Your task to perform on an android device: add a contact Image 0: 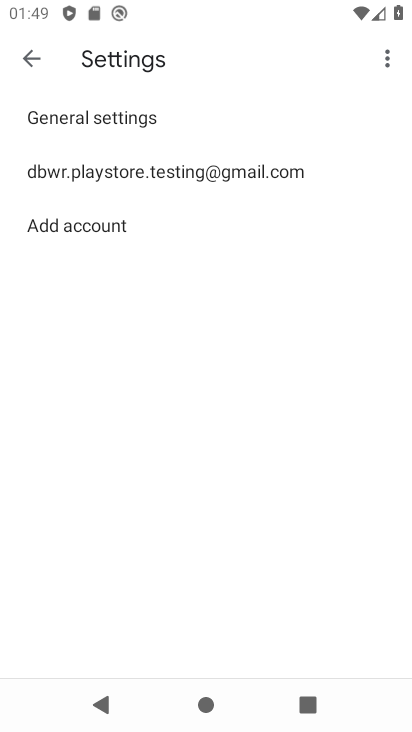
Step 0: press back button
Your task to perform on an android device: add a contact Image 1: 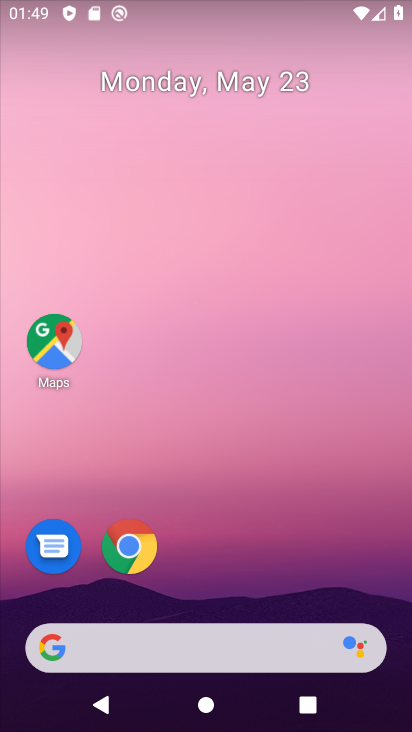
Step 1: drag from (229, 582) to (228, 37)
Your task to perform on an android device: add a contact Image 2: 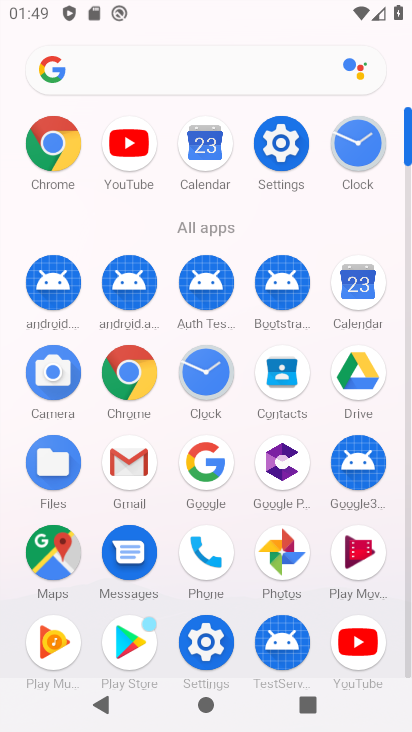
Step 2: click (290, 391)
Your task to perform on an android device: add a contact Image 3: 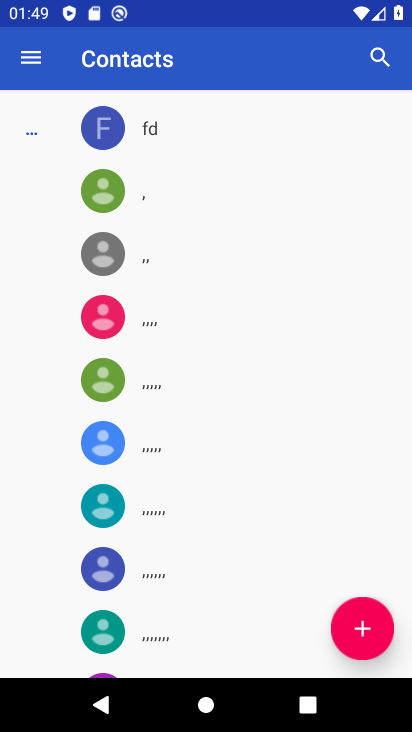
Step 3: click (374, 634)
Your task to perform on an android device: add a contact Image 4: 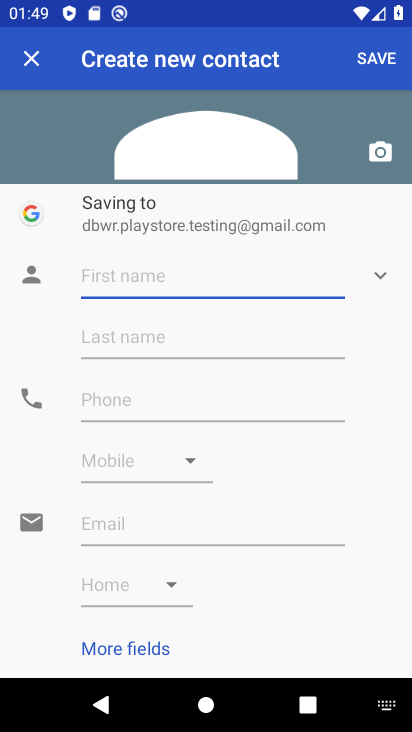
Step 4: click (157, 283)
Your task to perform on an android device: add a contact Image 5: 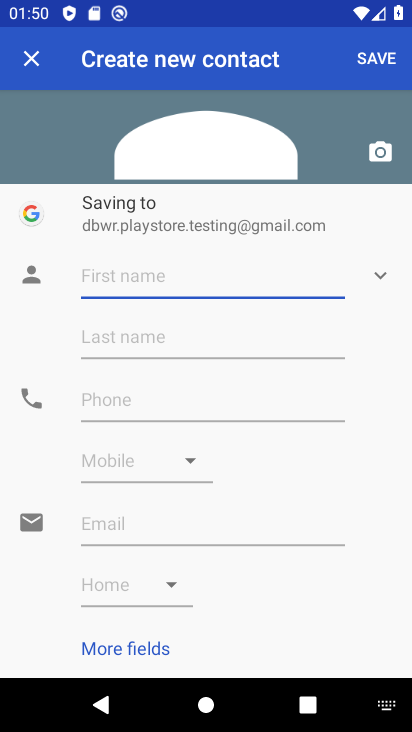
Step 5: type "gvgv"
Your task to perform on an android device: add a contact Image 6: 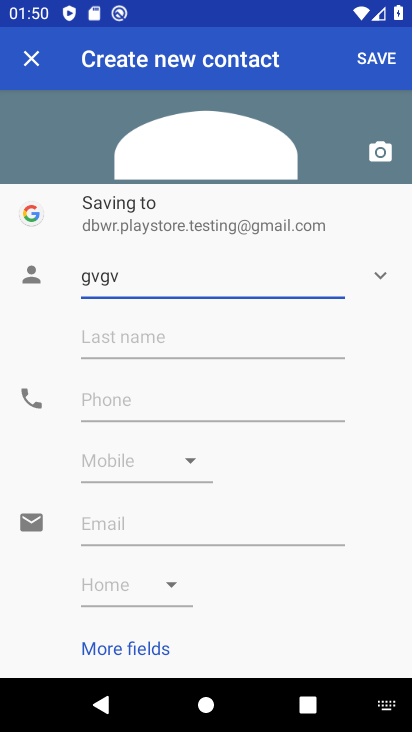
Step 6: click (132, 400)
Your task to perform on an android device: add a contact Image 7: 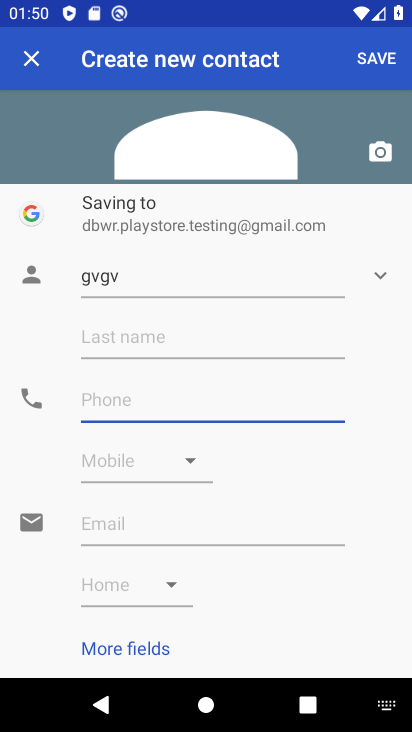
Step 7: type "68686"
Your task to perform on an android device: add a contact Image 8: 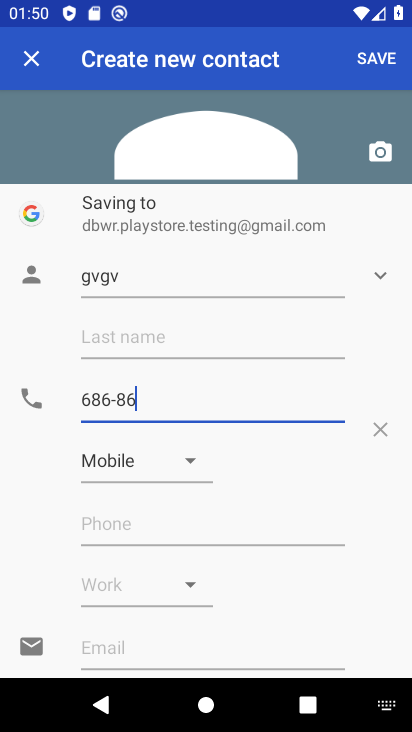
Step 8: click (366, 61)
Your task to perform on an android device: add a contact Image 9: 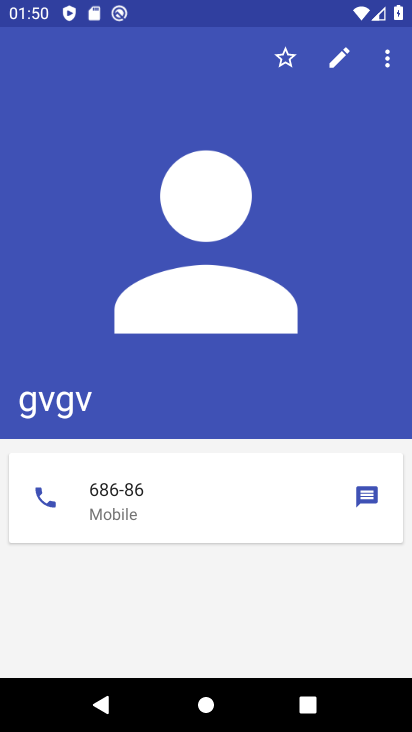
Step 9: task complete